Your task to perform on an android device: turn off sleep mode Image 0: 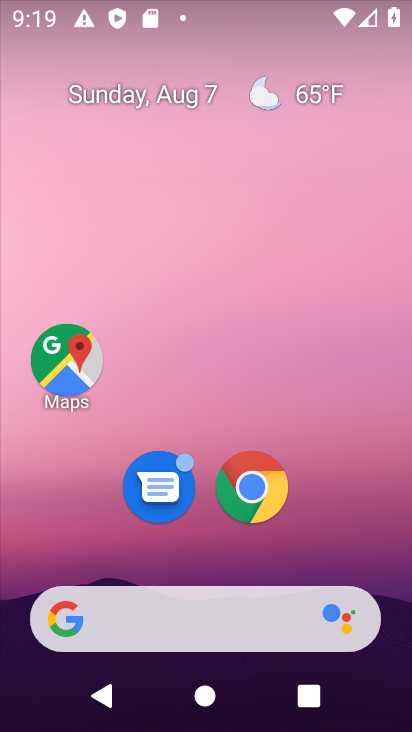
Step 0: click (50, 371)
Your task to perform on an android device: turn off sleep mode Image 1: 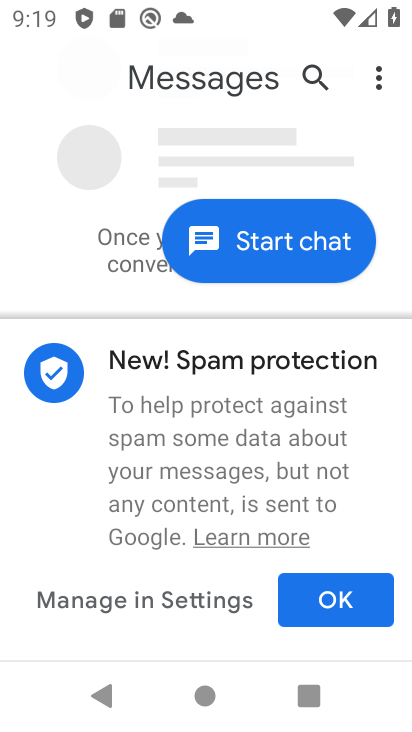
Step 1: press home button
Your task to perform on an android device: turn off sleep mode Image 2: 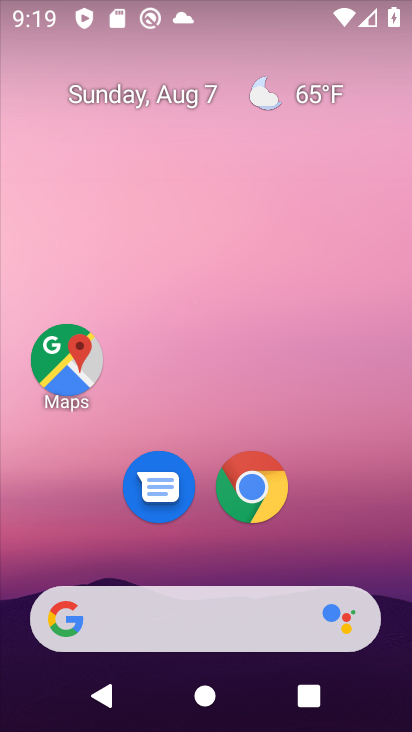
Step 2: drag from (342, 499) to (245, 6)
Your task to perform on an android device: turn off sleep mode Image 3: 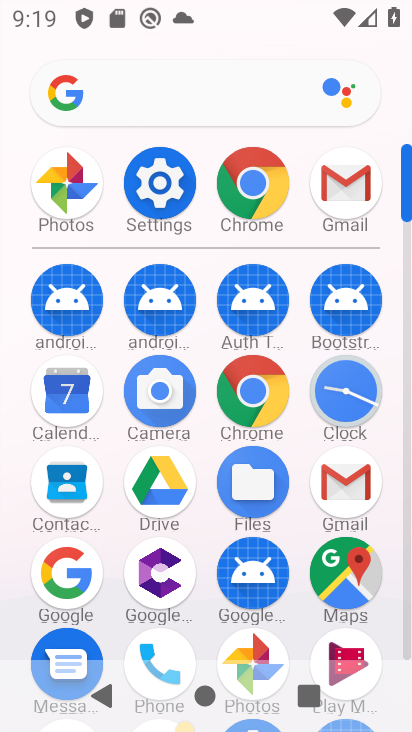
Step 3: click (145, 227)
Your task to perform on an android device: turn off sleep mode Image 4: 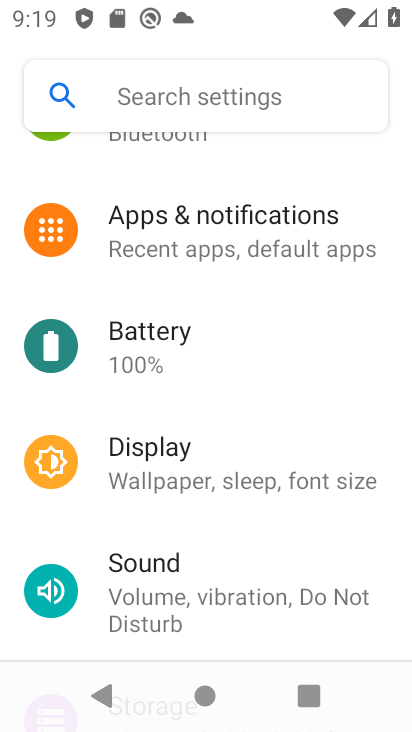
Step 4: drag from (288, 618) to (316, 185)
Your task to perform on an android device: turn off sleep mode Image 5: 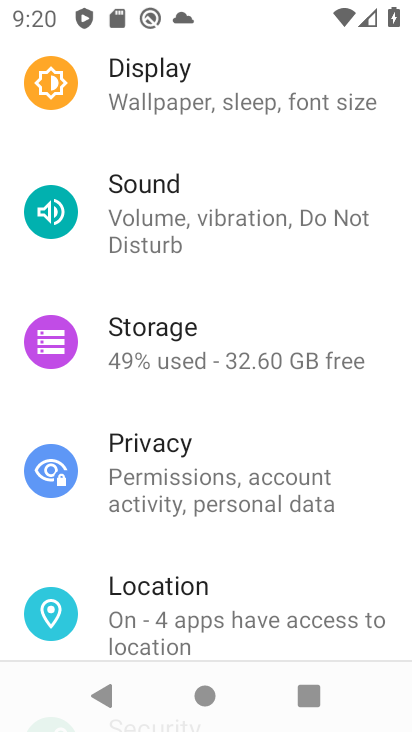
Step 5: drag from (262, 626) to (298, 200)
Your task to perform on an android device: turn off sleep mode Image 6: 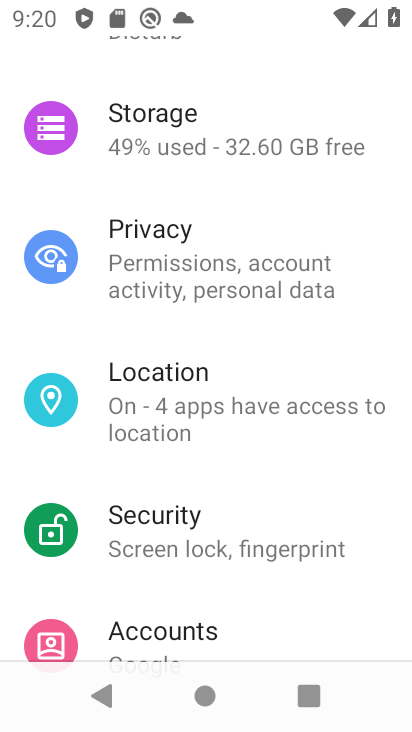
Step 6: drag from (336, 626) to (339, 301)
Your task to perform on an android device: turn off sleep mode Image 7: 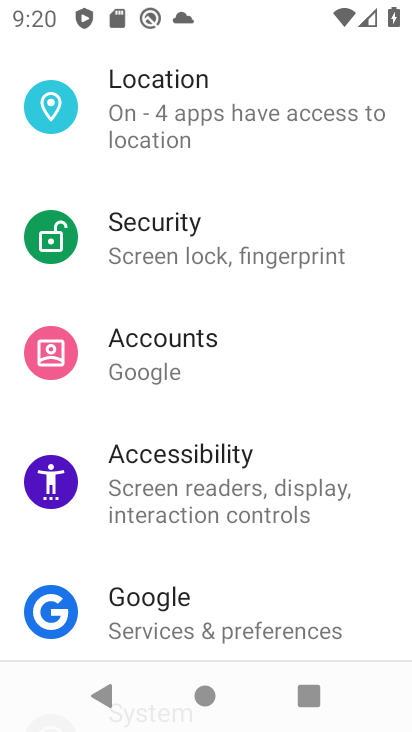
Step 7: drag from (263, 156) to (257, 542)
Your task to perform on an android device: turn off sleep mode Image 8: 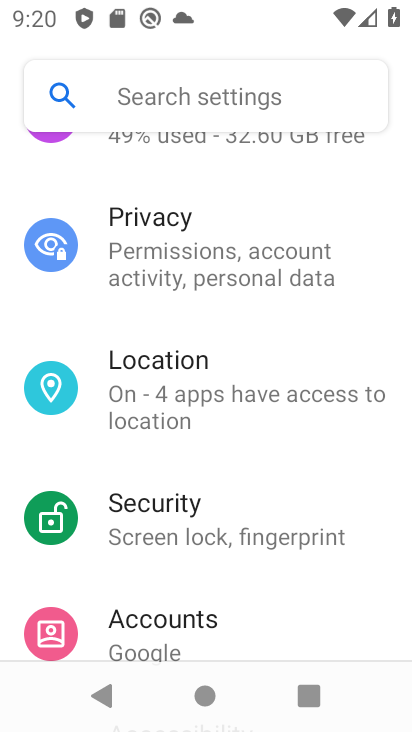
Step 8: drag from (284, 194) to (291, 583)
Your task to perform on an android device: turn off sleep mode Image 9: 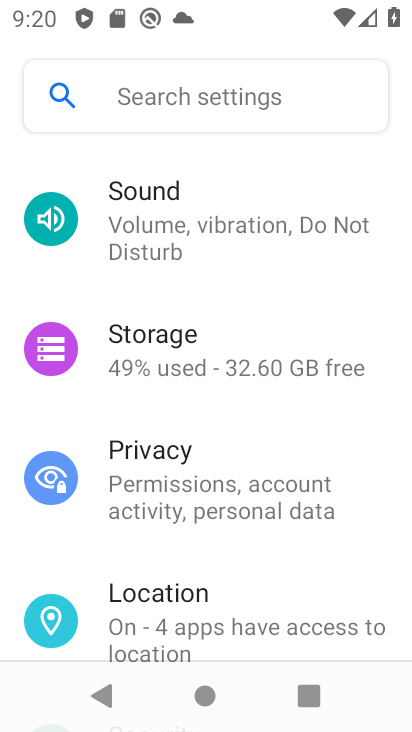
Step 9: drag from (278, 303) to (292, 585)
Your task to perform on an android device: turn off sleep mode Image 10: 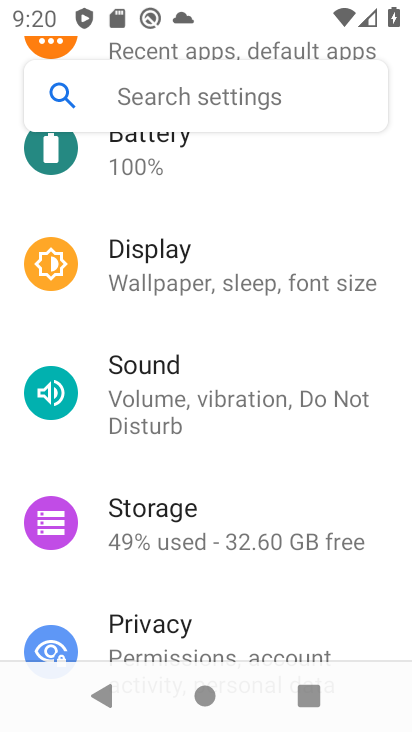
Step 10: click (161, 259)
Your task to perform on an android device: turn off sleep mode Image 11: 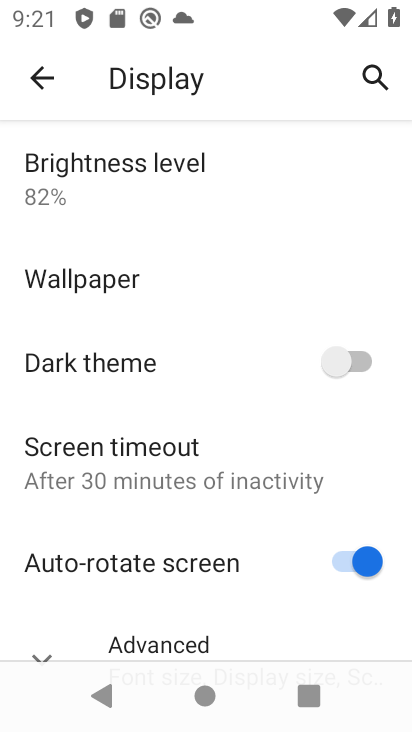
Step 11: task complete